Your task to perform on an android device: change text size in settings app Image 0: 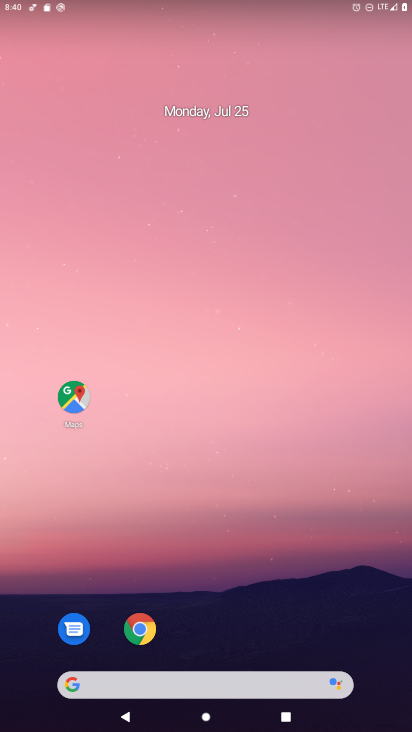
Step 0: press home button
Your task to perform on an android device: change text size in settings app Image 1: 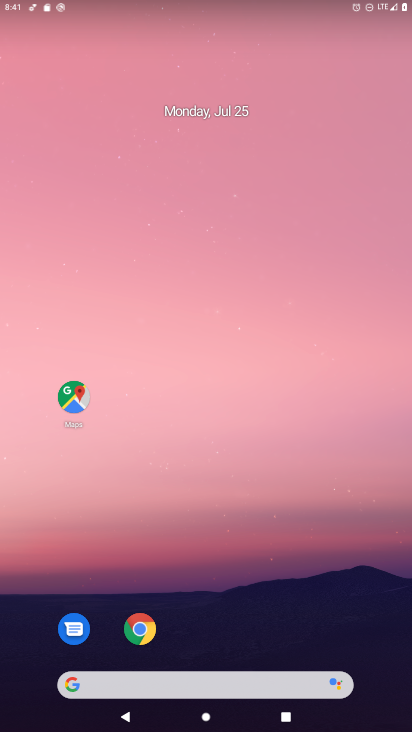
Step 1: drag from (210, 682) to (336, 29)
Your task to perform on an android device: change text size in settings app Image 2: 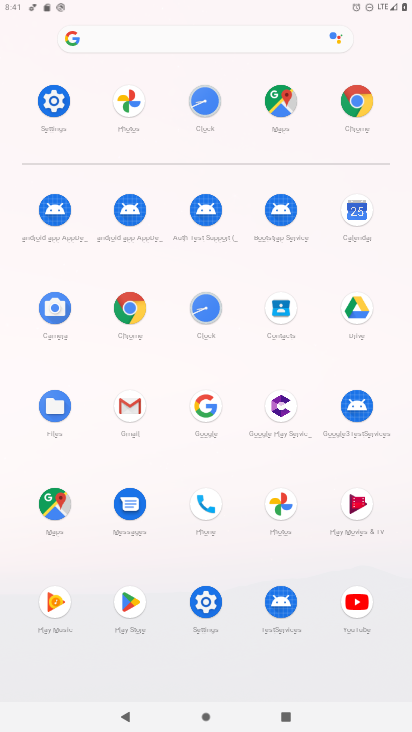
Step 2: click (205, 601)
Your task to perform on an android device: change text size in settings app Image 3: 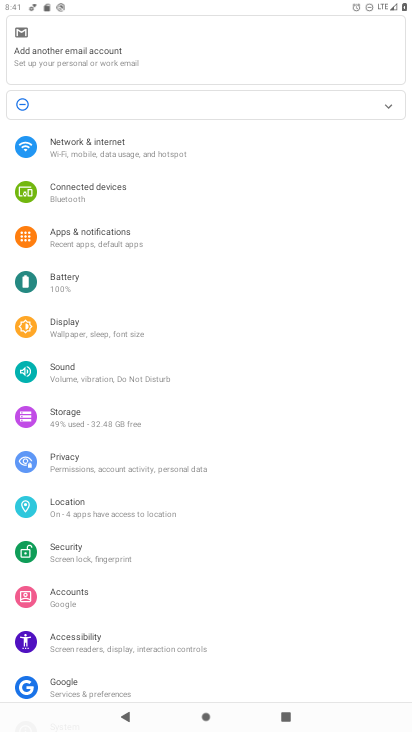
Step 3: drag from (102, 580) to (115, 536)
Your task to perform on an android device: change text size in settings app Image 4: 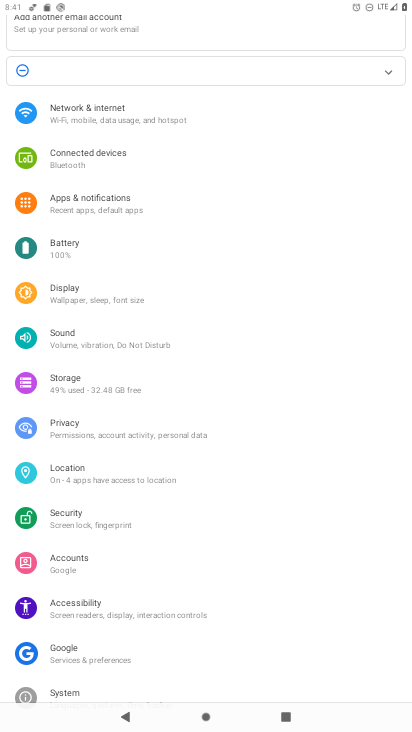
Step 4: click (89, 613)
Your task to perform on an android device: change text size in settings app Image 5: 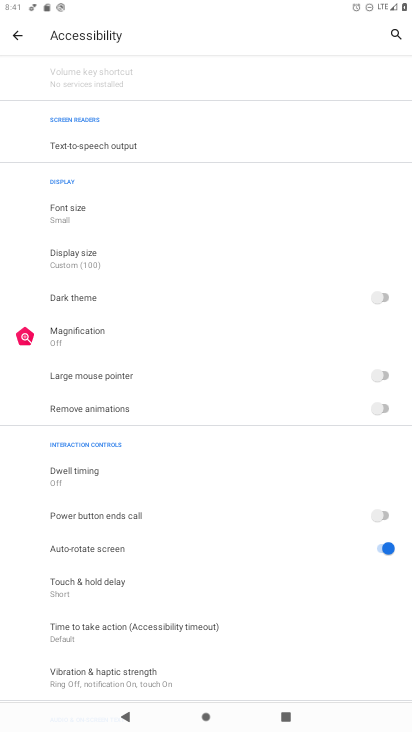
Step 5: click (86, 208)
Your task to perform on an android device: change text size in settings app Image 6: 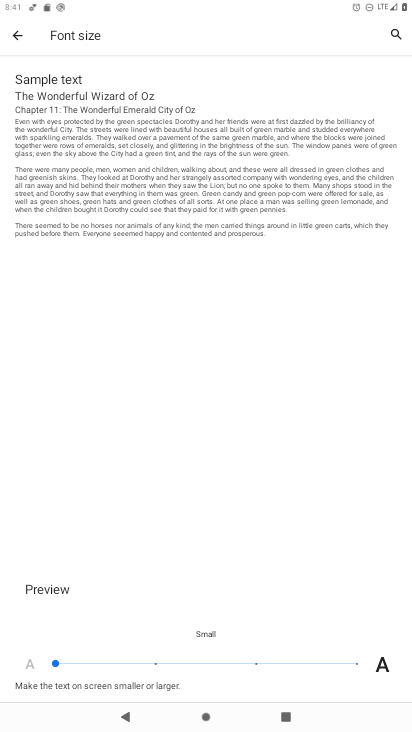
Step 6: click (356, 664)
Your task to perform on an android device: change text size in settings app Image 7: 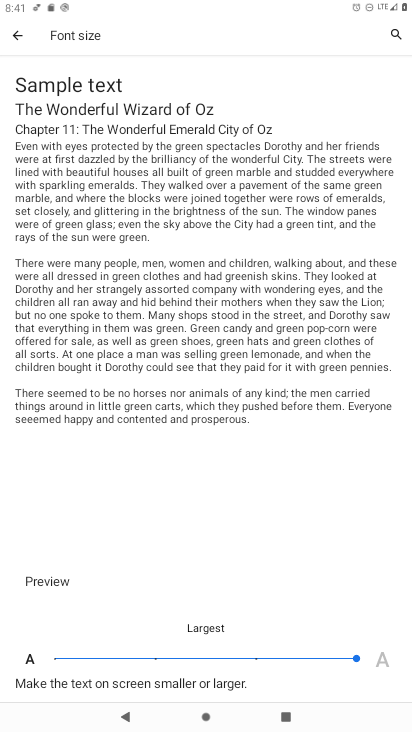
Step 7: task complete